Your task to perform on an android device: make emails show in primary in the gmail app Image 0: 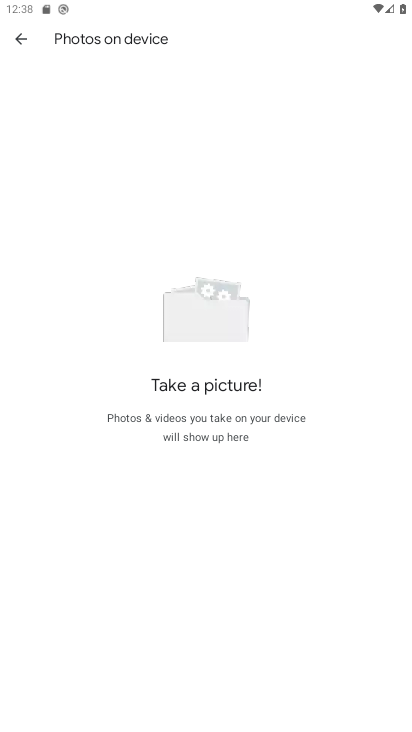
Step 0: press home button
Your task to perform on an android device: make emails show in primary in the gmail app Image 1: 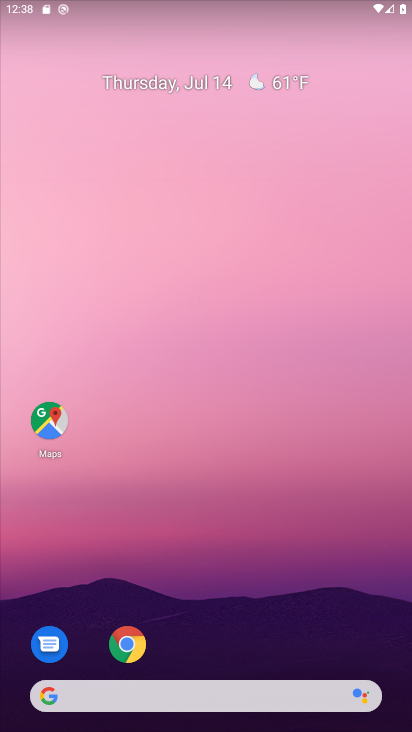
Step 1: drag from (277, 586) to (271, 65)
Your task to perform on an android device: make emails show in primary in the gmail app Image 2: 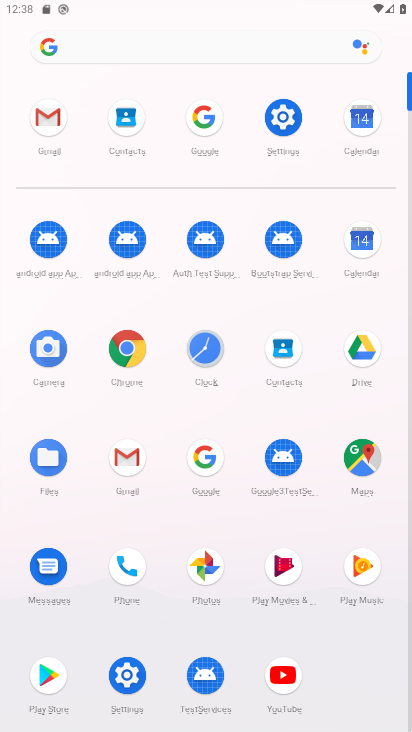
Step 2: click (128, 453)
Your task to perform on an android device: make emails show in primary in the gmail app Image 3: 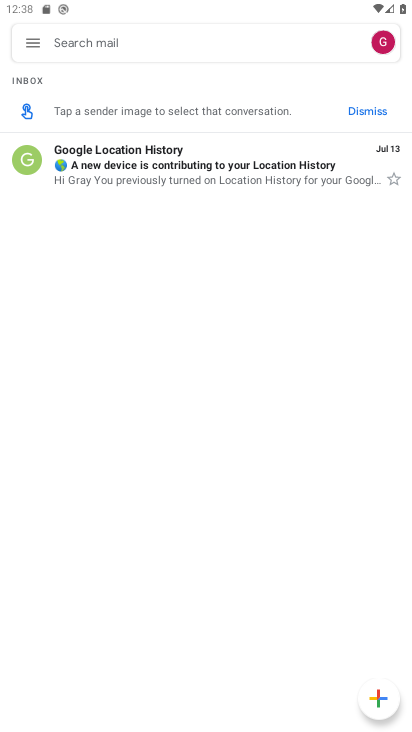
Step 3: click (29, 37)
Your task to perform on an android device: make emails show in primary in the gmail app Image 4: 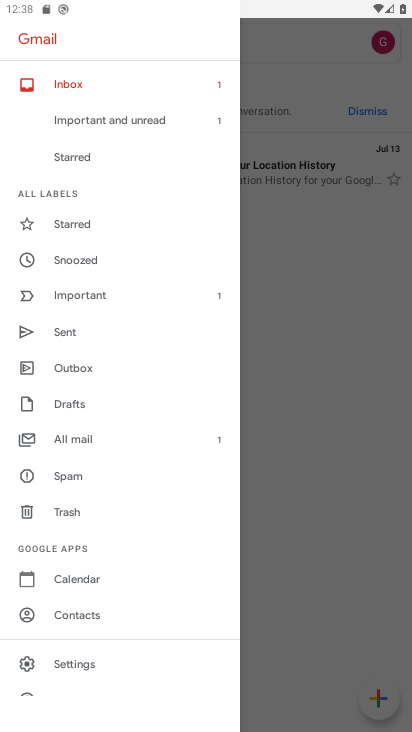
Step 4: click (111, 654)
Your task to perform on an android device: make emails show in primary in the gmail app Image 5: 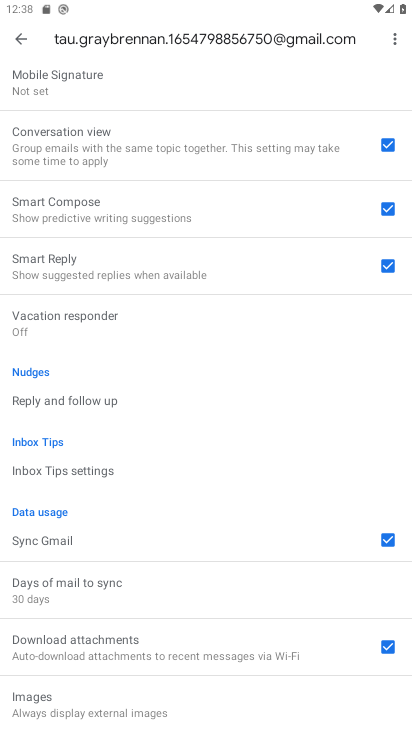
Step 5: click (132, 435)
Your task to perform on an android device: make emails show in primary in the gmail app Image 6: 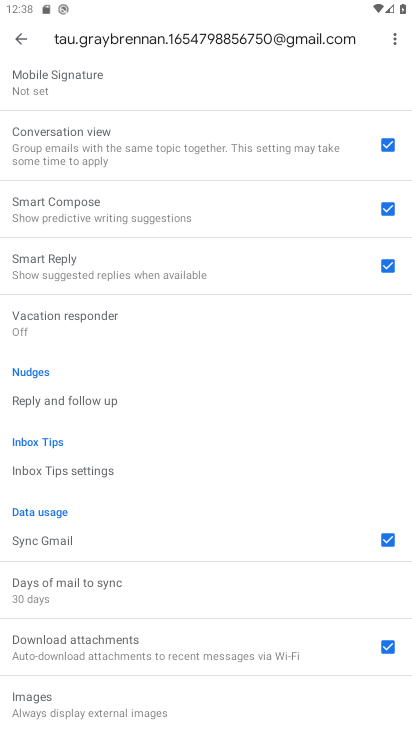
Step 6: drag from (181, 138) to (210, 479)
Your task to perform on an android device: make emails show in primary in the gmail app Image 7: 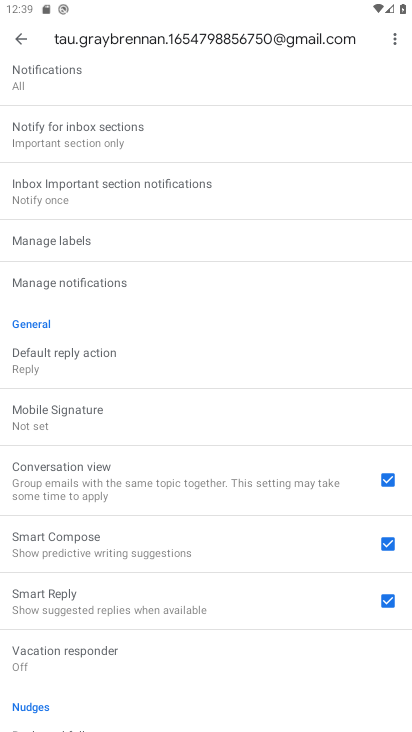
Step 7: drag from (169, 232) to (209, 651)
Your task to perform on an android device: make emails show in primary in the gmail app Image 8: 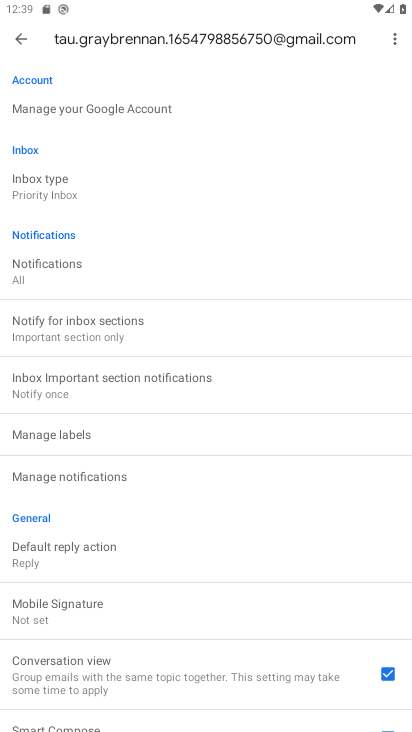
Step 8: click (79, 187)
Your task to perform on an android device: make emails show in primary in the gmail app Image 9: 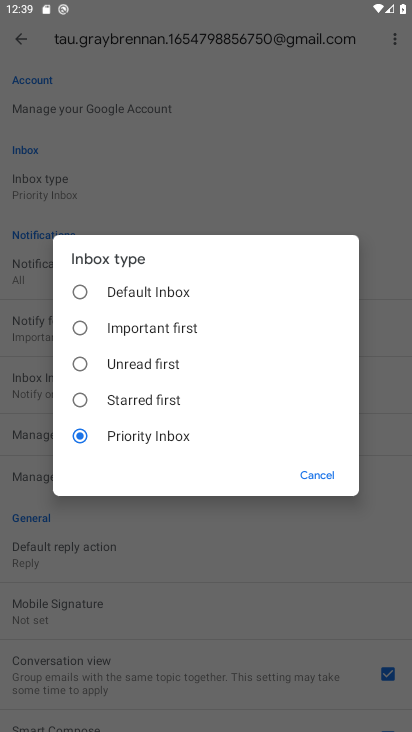
Step 9: click (134, 296)
Your task to perform on an android device: make emails show in primary in the gmail app Image 10: 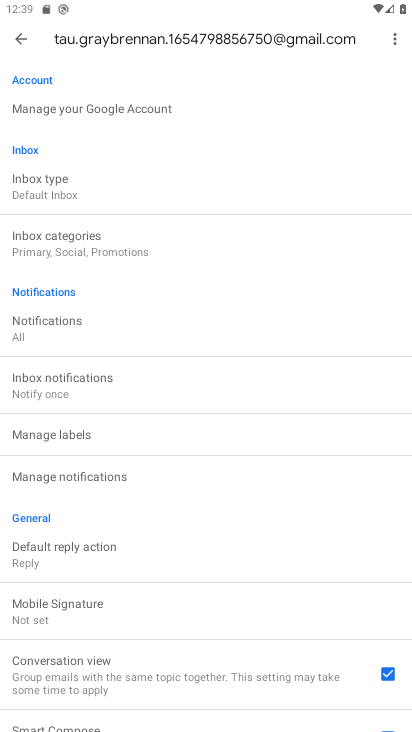
Step 10: task complete